Your task to perform on an android device: Search for pizza restaurants on Maps Image 0: 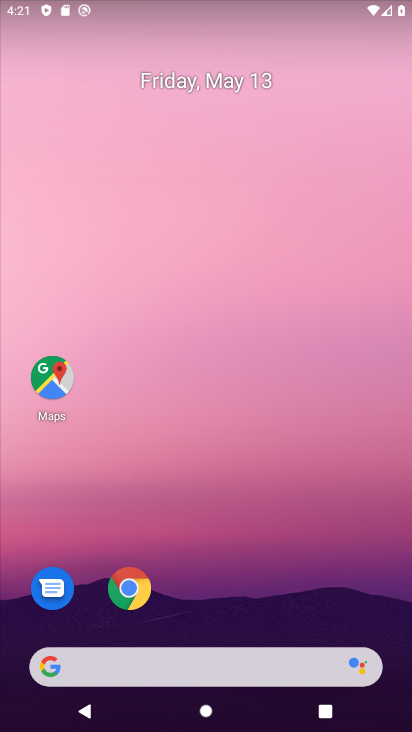
Step 0: click (43, 388)
Your task to perform on an android device: Search for pizza restaurants on Maps Image 1: 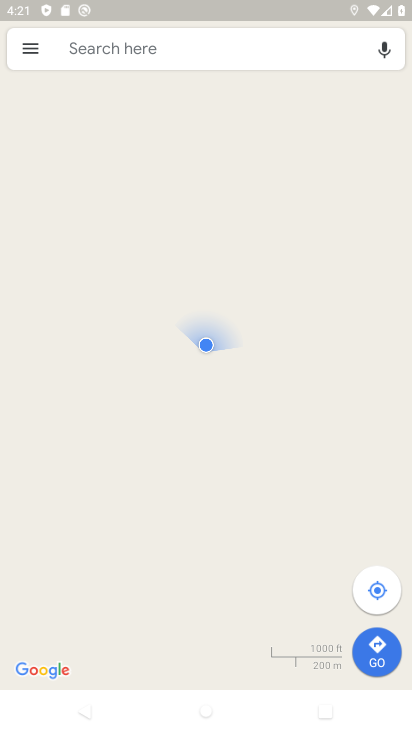
Step 1: click (233, 47)
Your task to perform on an android device: Search for pizza restaurants on Maps Image 2: 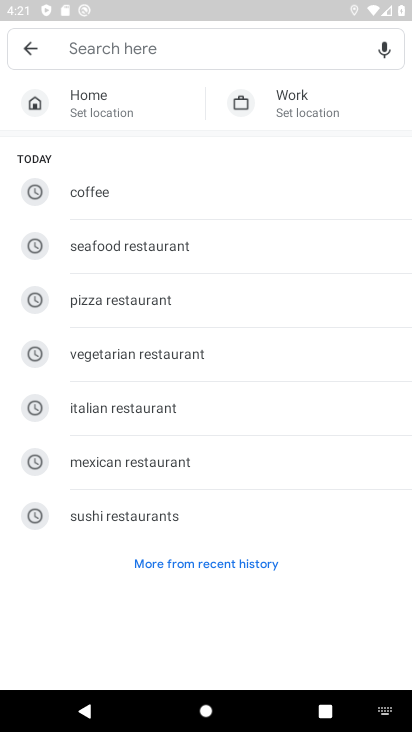
Step 2: click (194, 315)
Your task to perform on an android device: Search for pizza restaurants on Maps Image 3: 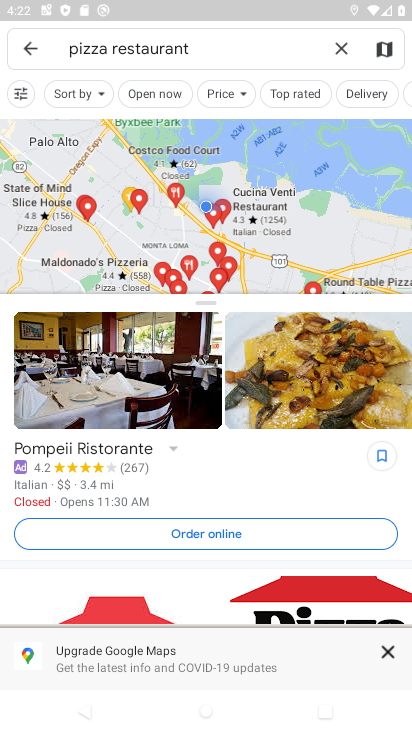
Step 3: task complete